Your task to perform on an android device: open app "Microsoft Outlook" (install if not already installed) and go to login screen Image 0: 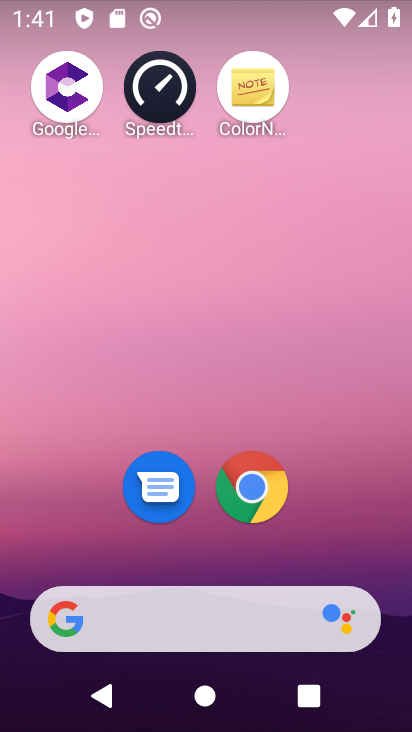
Step 0: drag from (181, 581) to (171, 63)
Your task to perform on an android device: open app "Microsoft Outlook" (install if not already installed) and go to login screen Image 1: 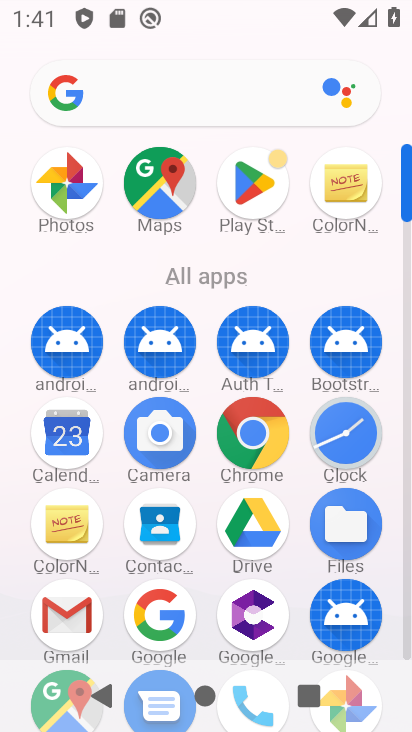
Step 1: click (238, 179)
Your task to perform on an android device: open app "Microsoft Outlook" (install if not already installed) and go to login screen Image 2: 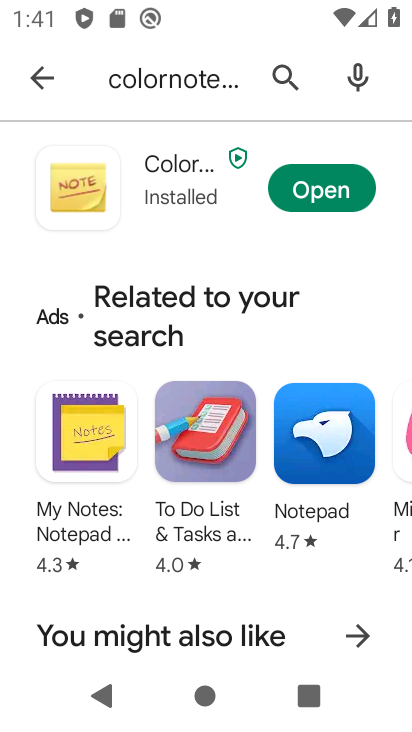
Step 2: click (53, 68)
Your task to perform on an android device: open app "Microsoft Outlook" (install if not already installed) and go to login screen Image 3: 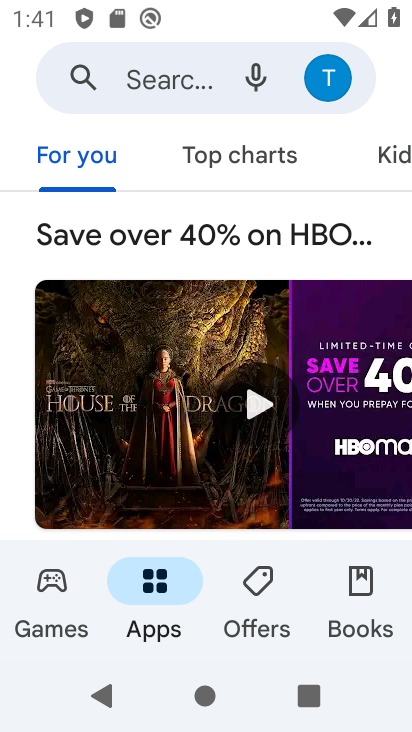
Step 3: click (105, 69)
Your task to perform on an android device: open app "Microsoft Outlook" (install if not already installed) and go to login screen Image 4: 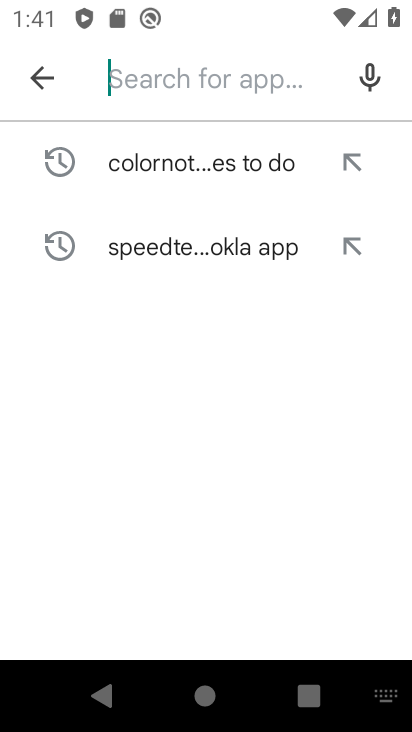
Step 4: type "Microsoft Outlook "
Your task to perform on an android device: open app "Microsoft Outlook" (install if not already installed) and go to login screen Image 5: 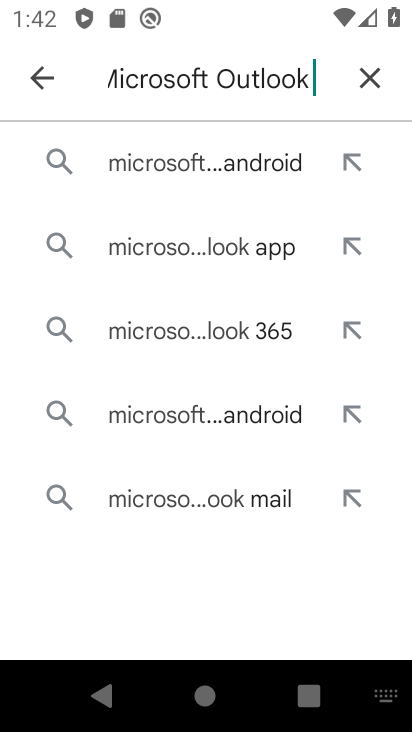
Step 5: click (247, 145)
Your task to perform on an android device: open app "Microsoft Outlook" (install if not already installed) and go to login screen Image 6: 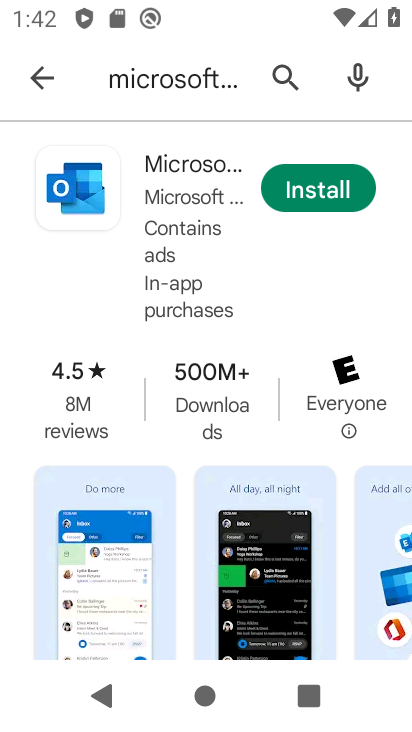
Step 6: click (330, 184)
Your task to perform on an android device: open app "Microsoft Outlook" (install if not already installed) and go to login screen Image 7: 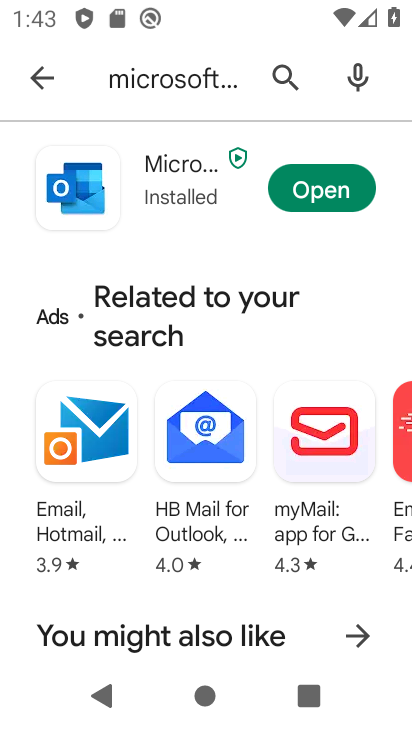
Step 7: task complete